Your task to perform on an android device: uninstall "eBay: The shopping marketplace" Image 0: 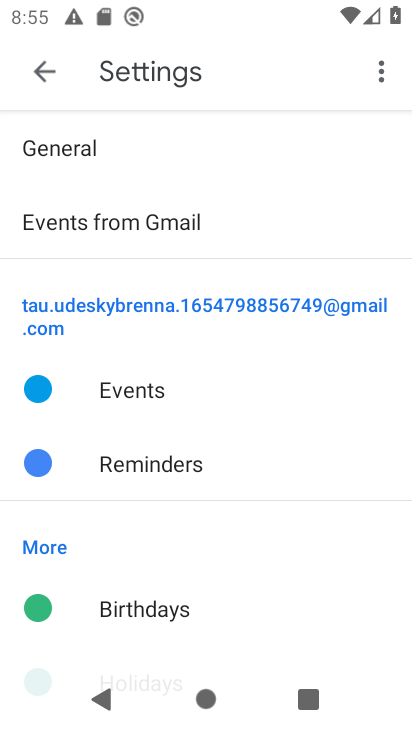
Step 0: press home button
Your task to perform on an android device: uninstall "eBay: The shopping marketplace" Image 1: 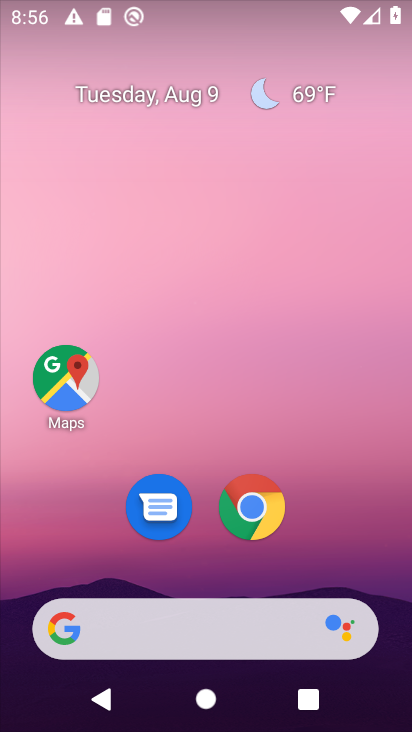
Step 1: drag from (202, 604) to (203, 142)
Your task to perform on an android device: uninstall "eBay: The shopping marketplace" Image 2: 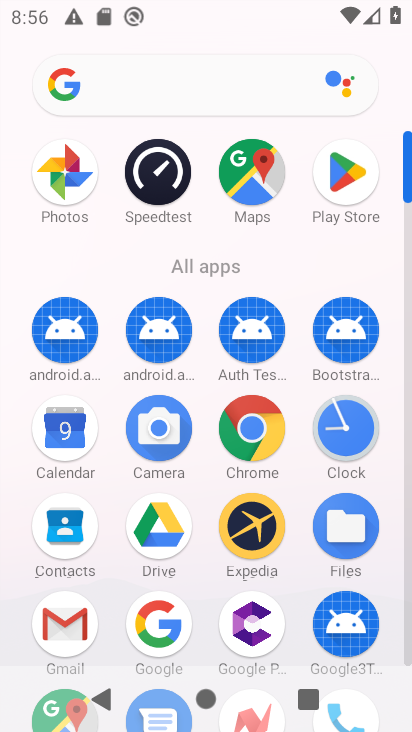
Step 2: click (353, 175)
Your task to perform on an android device: uninstall "eBay: The shopping marketplace" Image 3: 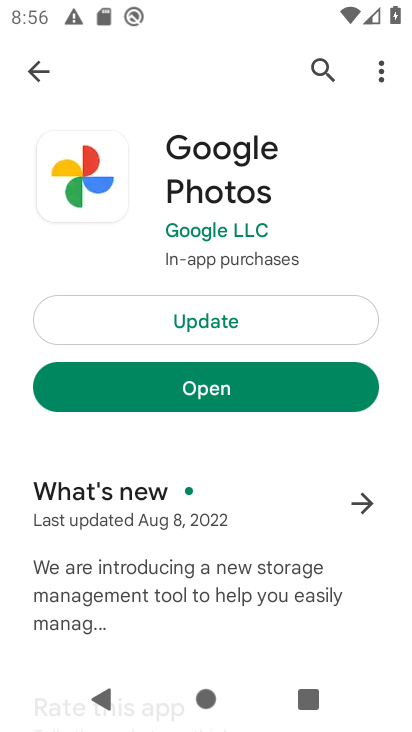
Step 3: click (325, 70)
Your task to perform on an android device: uninstall "eBay: The shopping marketplace" Image 4: 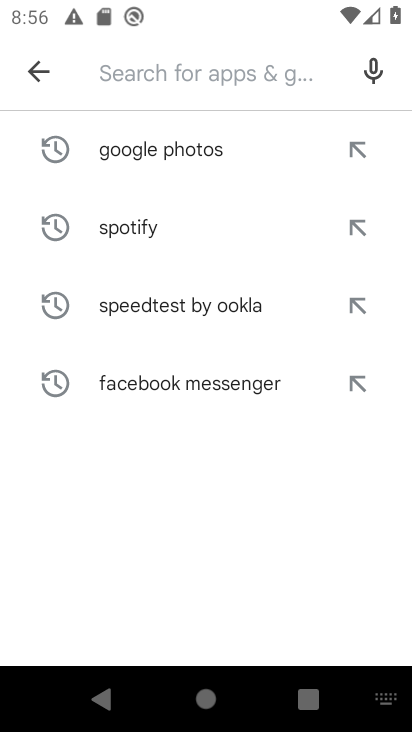
Step 4: type "eBay"
Your task to perform on an android device: uninstall "eBay: The shopping marketplace" Image 5: 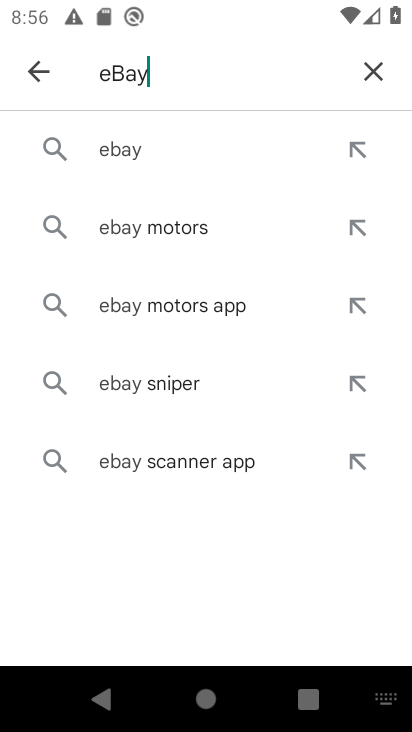
Step 5: click (118, 151)
Your task to perform on an android device: uninstall "eBay: The shopping marketplace" Image 6: 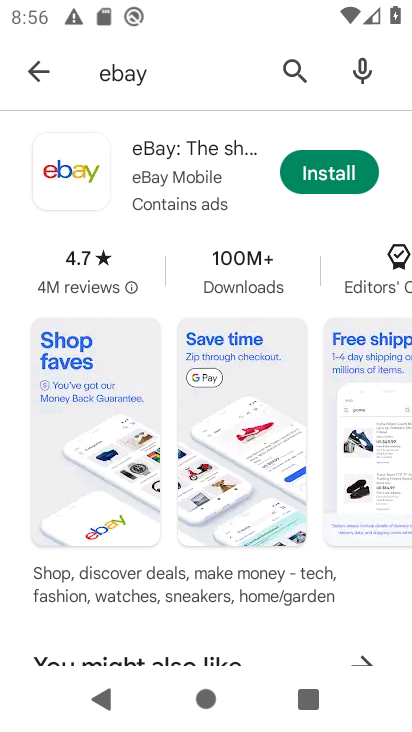
Step 6: task complete